Your task to perform on an android device: turn pop-ups on in chrome Image 0: 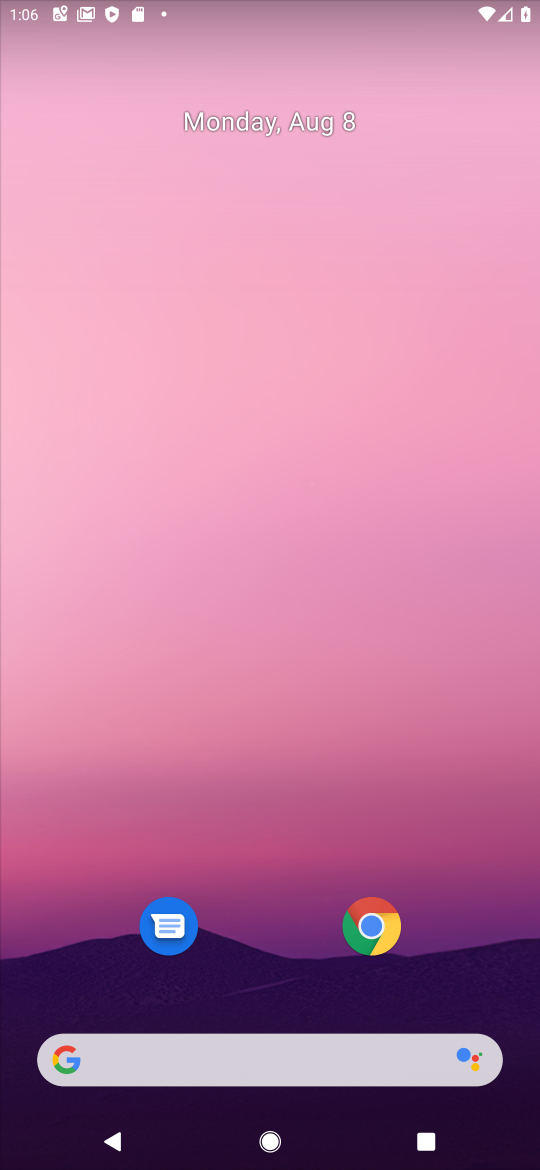
Step 0: drag from (342, 741) to (344, 647)
Your task to perform on an android device: turn pop-ups on in chrome Image 1: 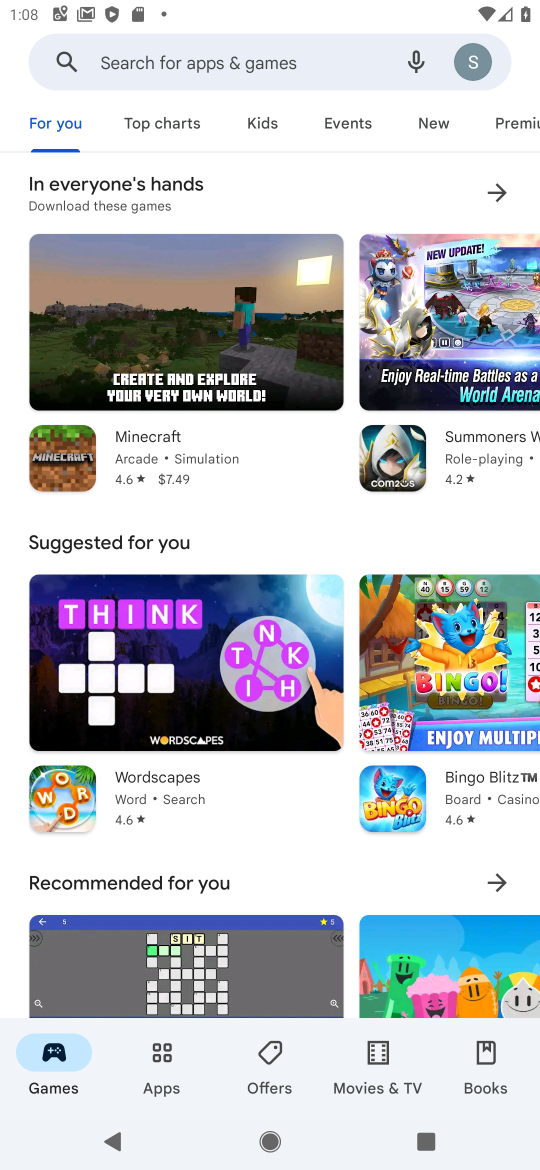
Step 1: press home button
Your task to perform on an android device: turn pop-ups on in chrome Image 2: 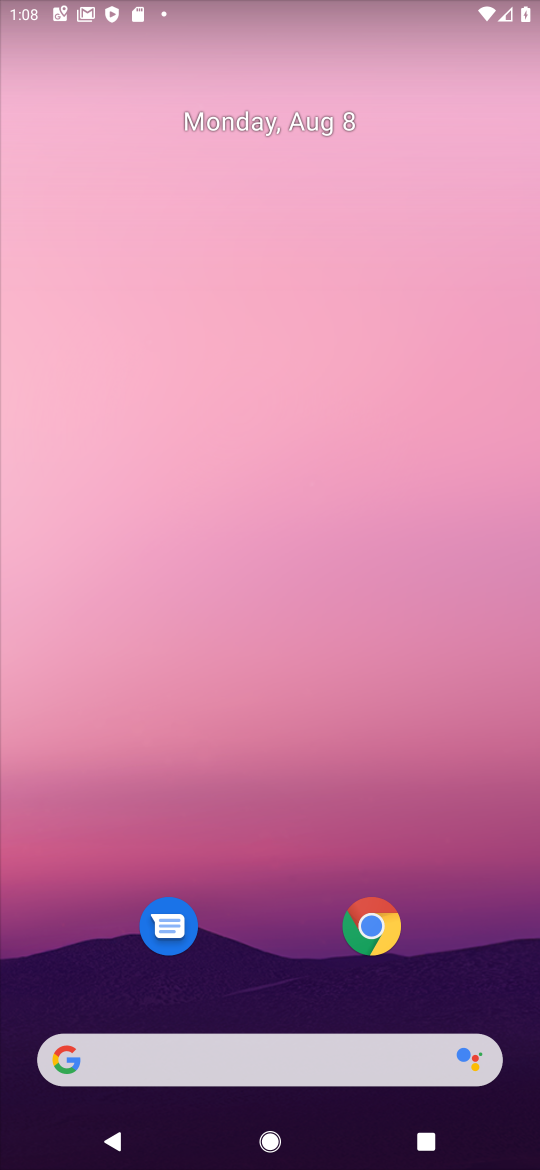
Step 2: drag from (300, 958) to (293, 110)
Your task to perform on an android device: turn pop-ups on in chrome Image 3: 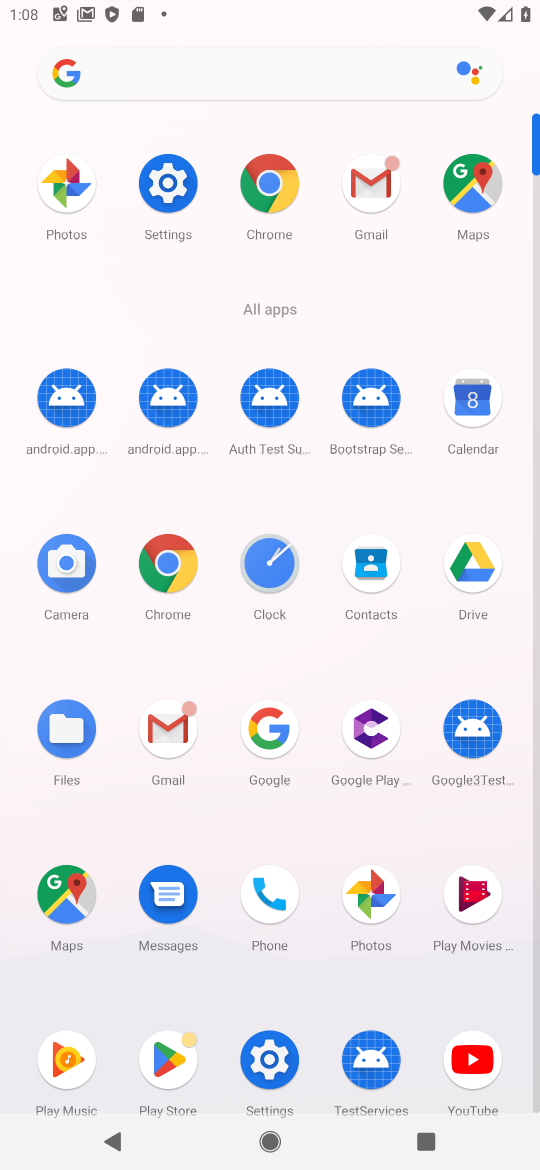
Step 3: click (293, 165)
Your task to perform on an android device: turn pop-ups on in chrome Image 4: 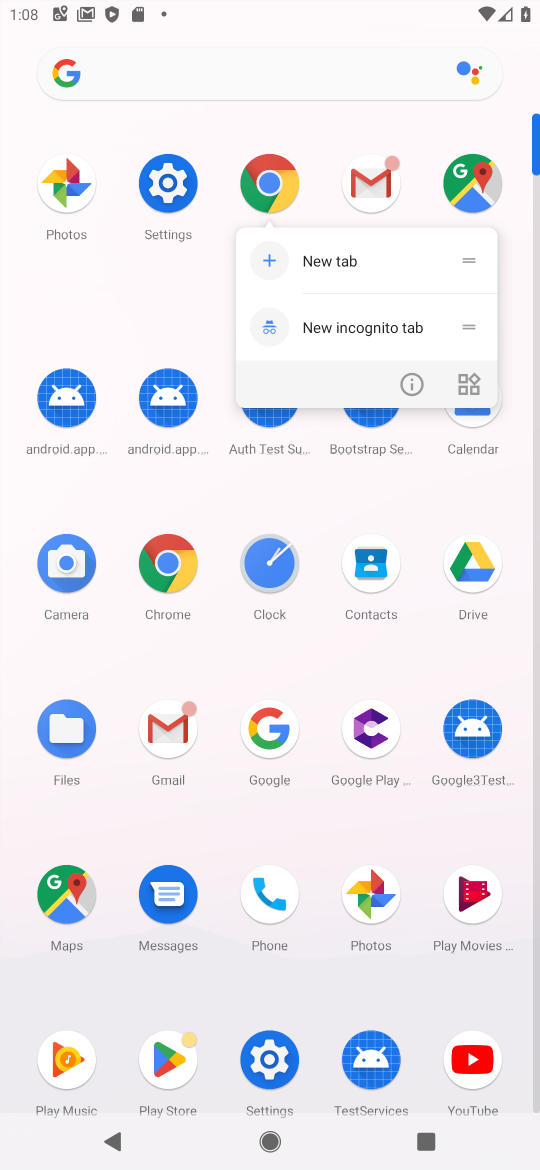
Step 4: click (273, 170)
Your task to perform on an android device: turn pop-ups on in chrome Image 5: 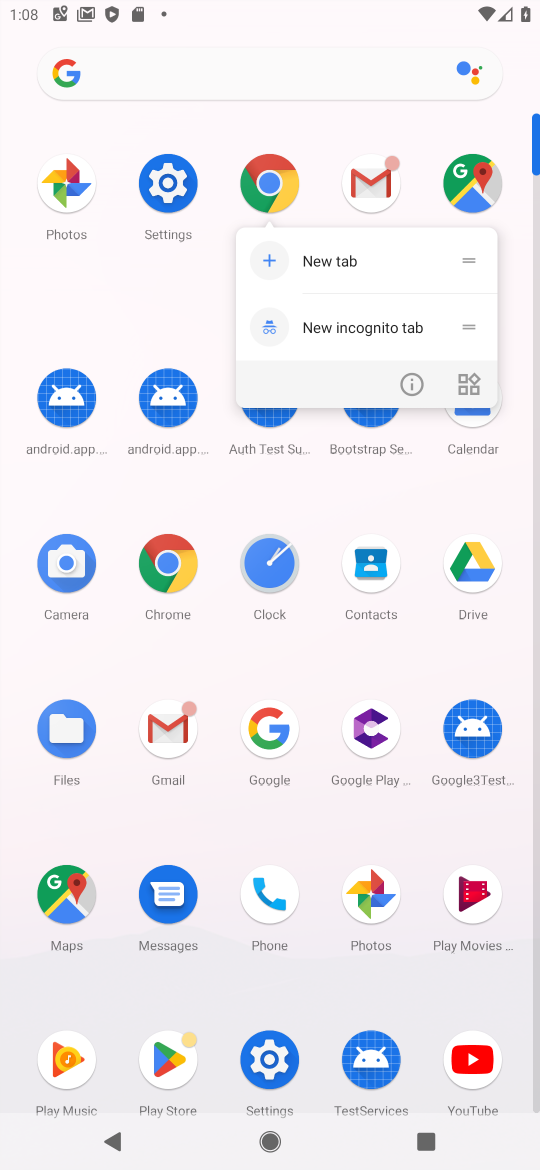
Step 5: click (273, 173)
Your task to perform on an android device: turn pop-ups on in chrome Image 6: 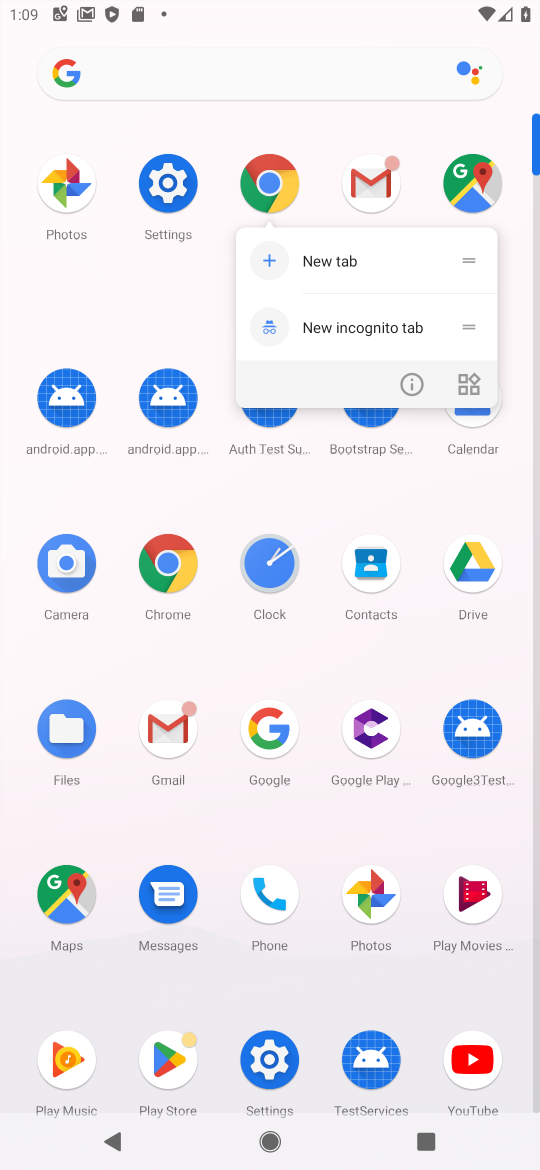
Step 6: click (251, 165)
Your task to perform on an android device: turn pop-ups on in chrome Image 7: 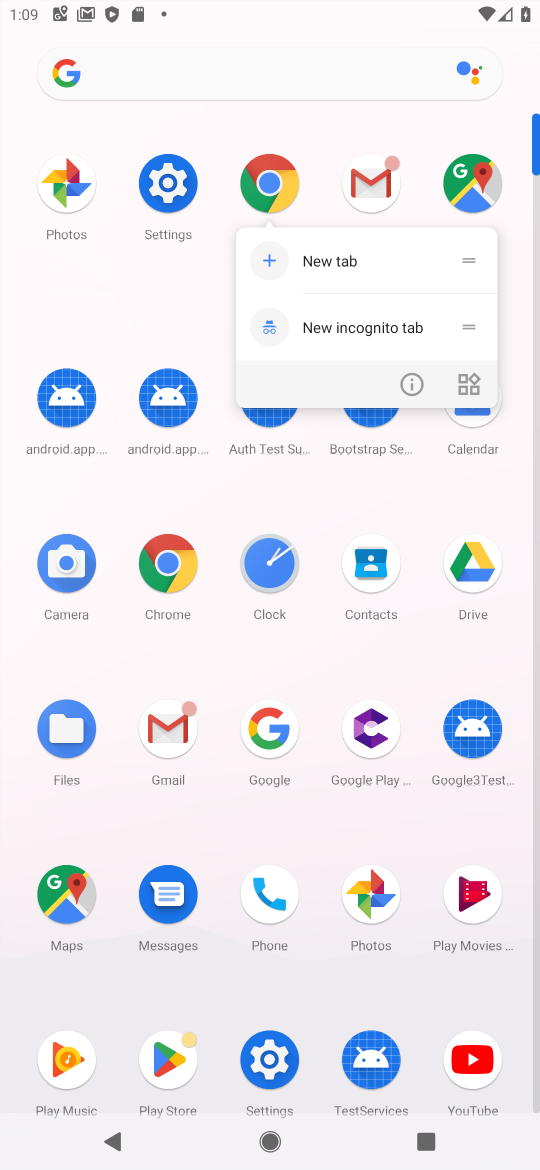
Step 7: click (289, 174)
Your task to perform on an android device: turn pop-ups on in chrome Image 8: 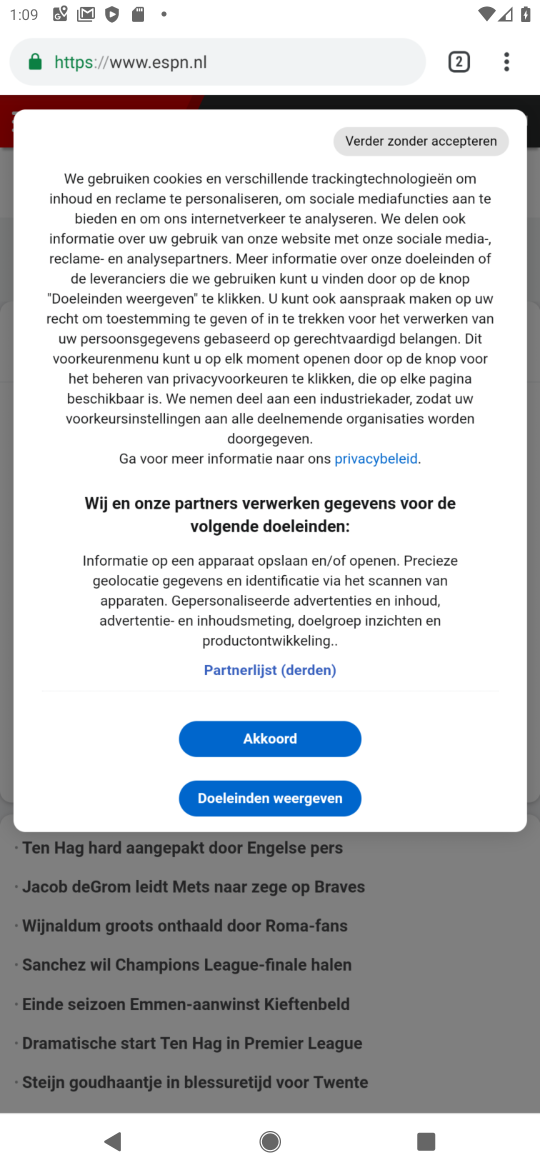
Step 8: click (512, 57)
Your task to perform on an android device: turn pop-ups on in chrome Image 9: 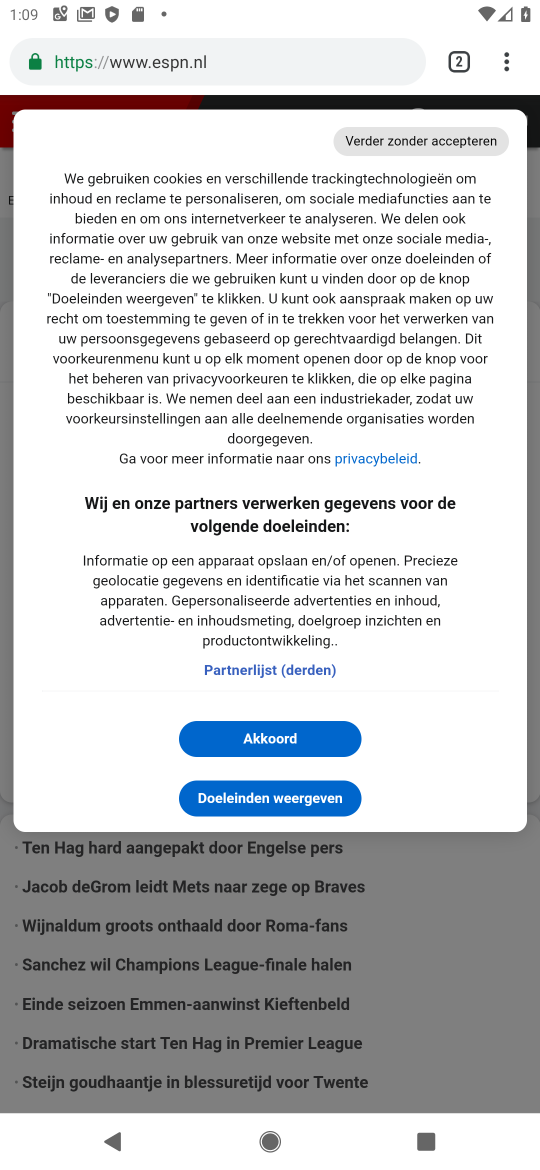
Step 9: click (512, 61)
Your task to perform on an android device: turn pop-ups on in chrome Image 10: 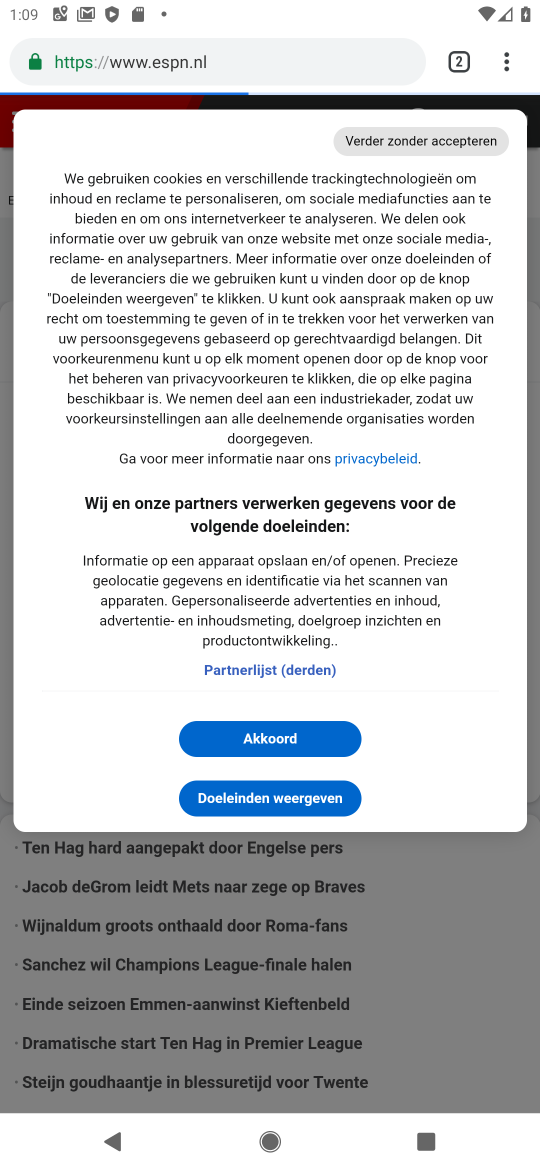
Step 10: click (498, 58)
Your task to perform on an android device: turn pop-ups on in chrome Image 11: 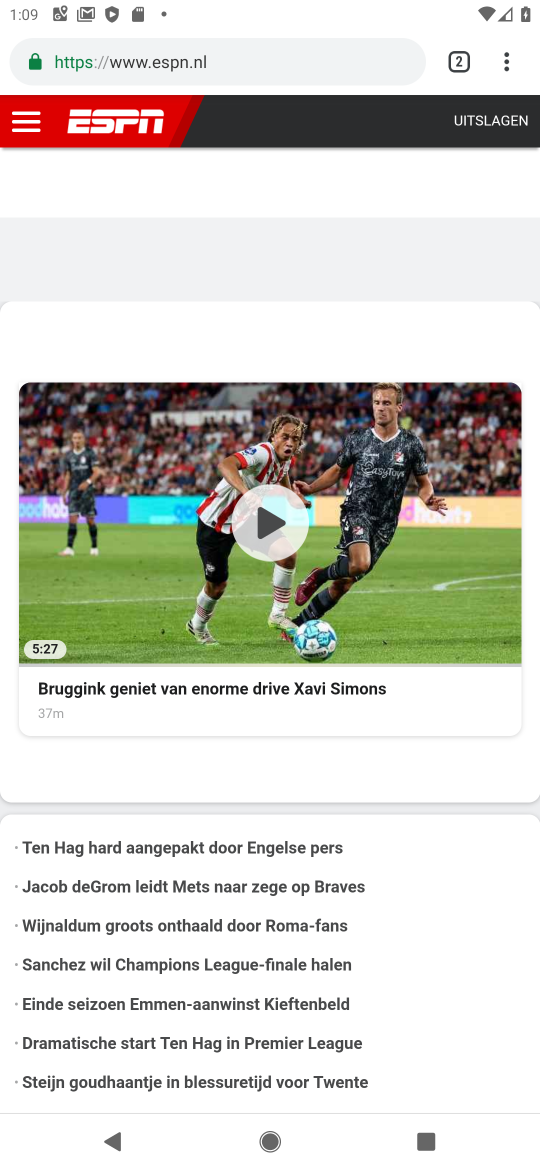
Step 11: click (513, 57)
Your task to perform on an android device: turn pop-ups on in chrome Image 12: 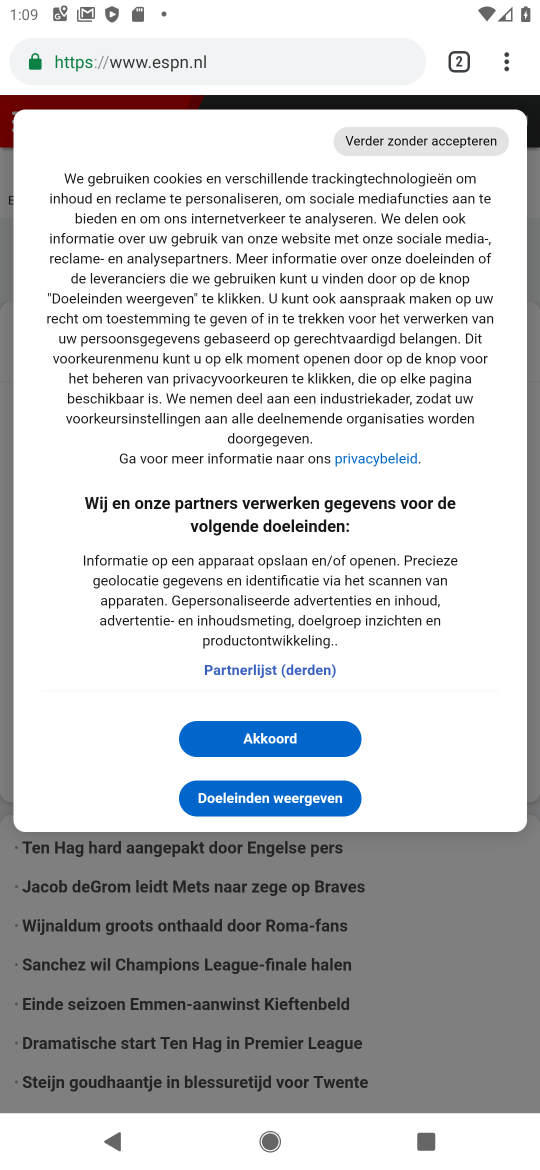
Step 12: click (513, 57)
Your task to perform on an android device: turn pop-ups on in chrome Image 13: 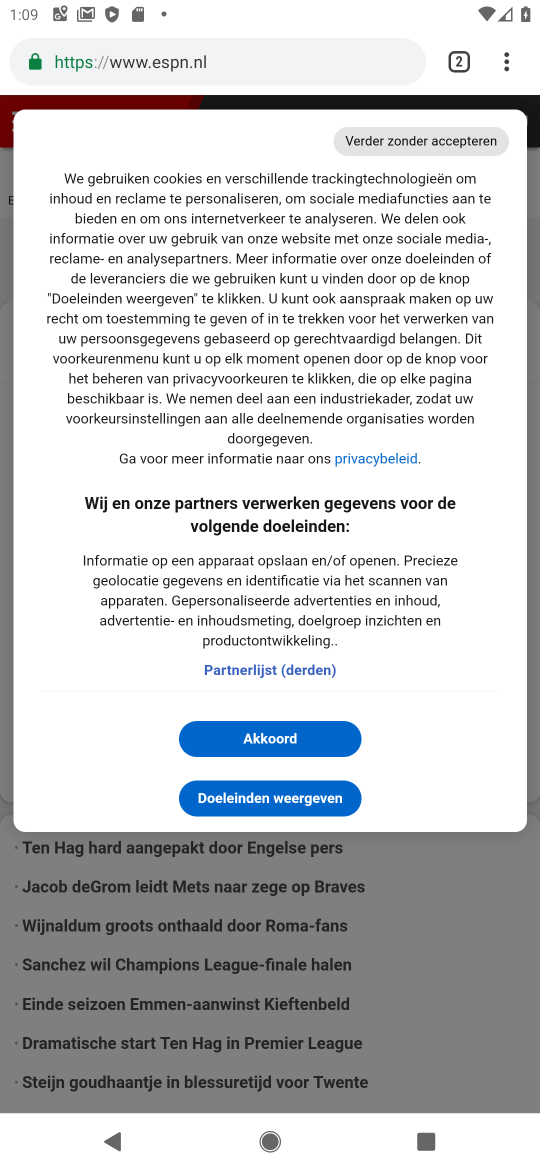
Step 13: click (497, 64)
Your task to perform on an android device: turn pop-ups on in chrome Image 14: 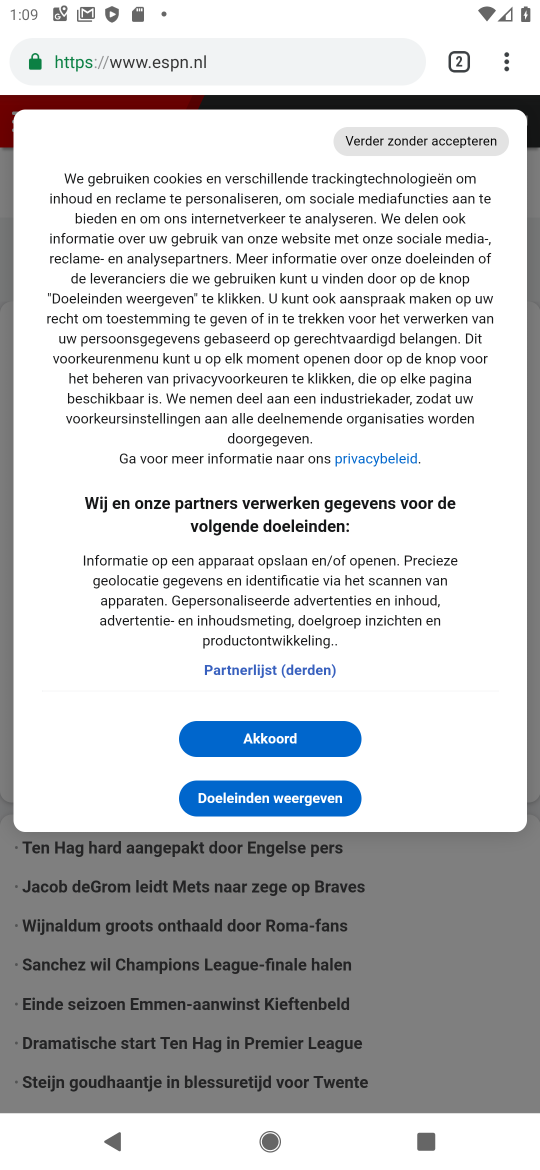
Step 14: click (497, 64)
Your task to perform on an android device: turn pop-ups on in chrome Image 15: 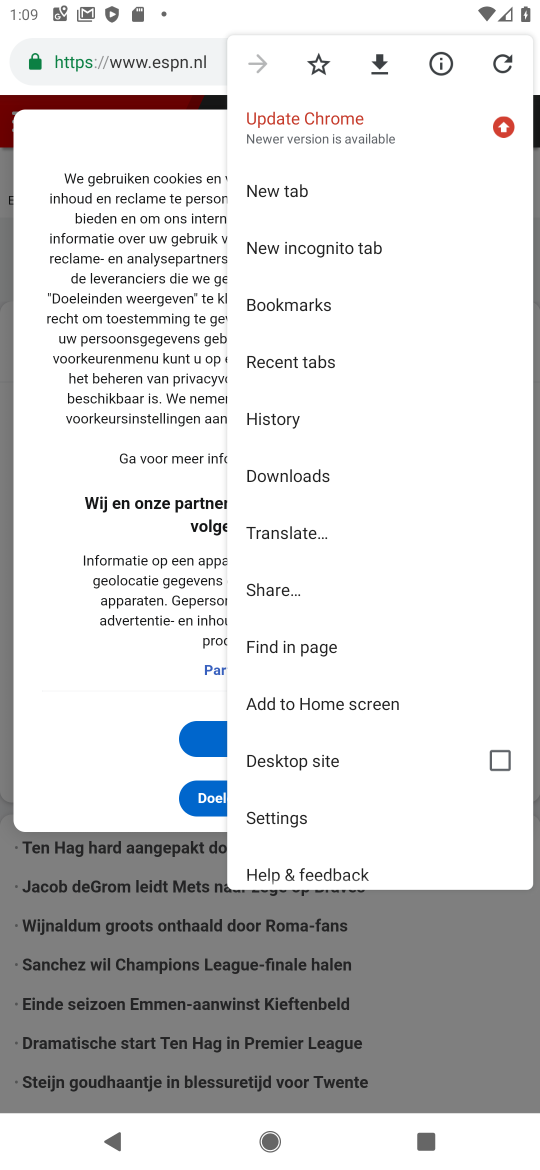
Step 15: click (279, 816)
Your task to perform on an android device: turn pop-ups on in chrome Image 16: 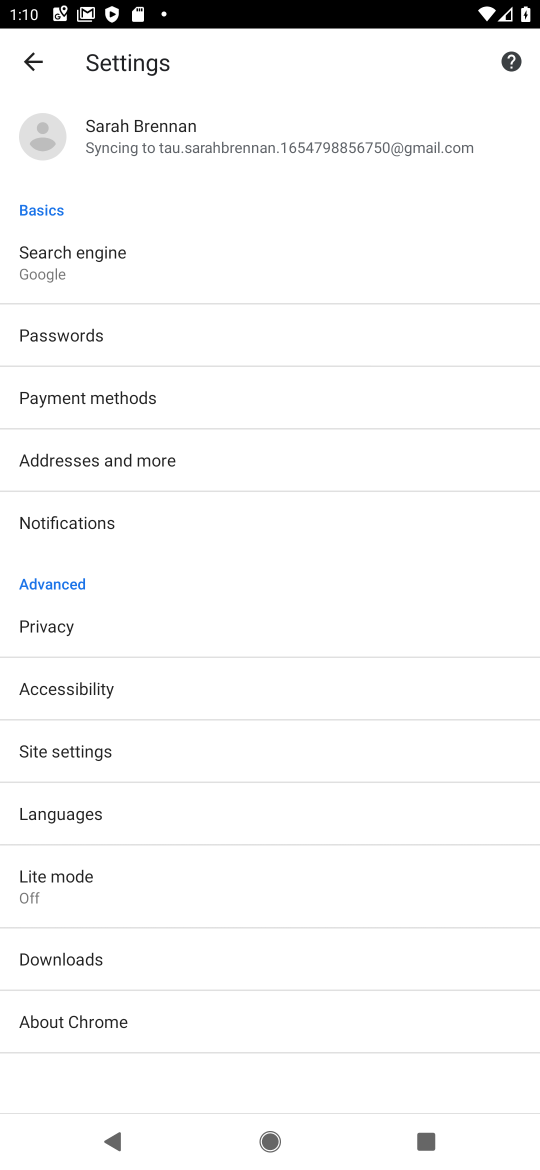
Step 16: click (85, 760)
Your task to perform on an android device: turn pop-ups on in chrome Image 17: 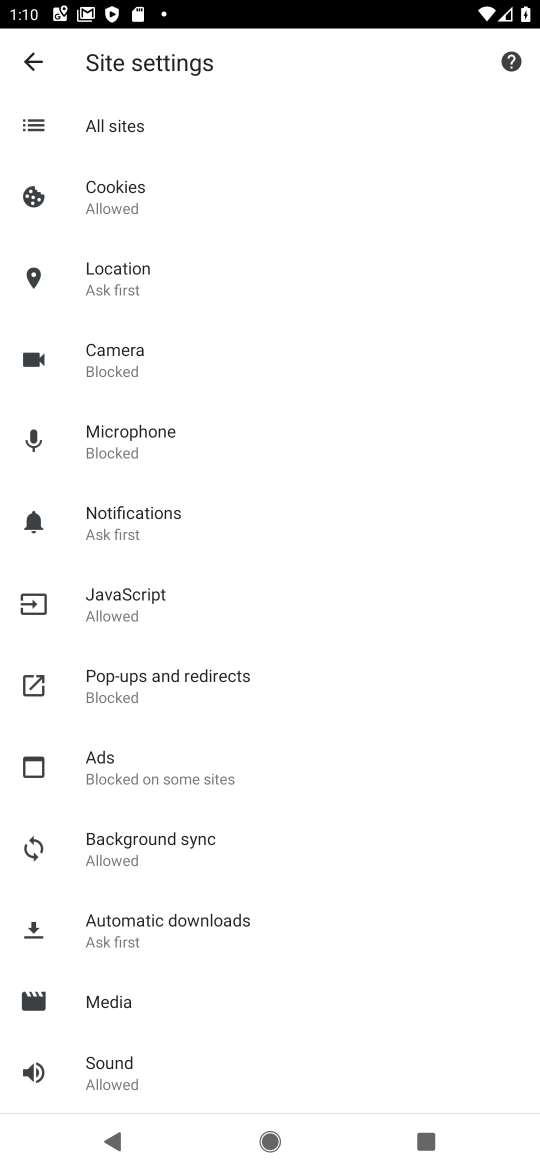
Step 17: click (194, 661)
Your task to perform on an android device: turn pop-ups on in chrome Image 18: 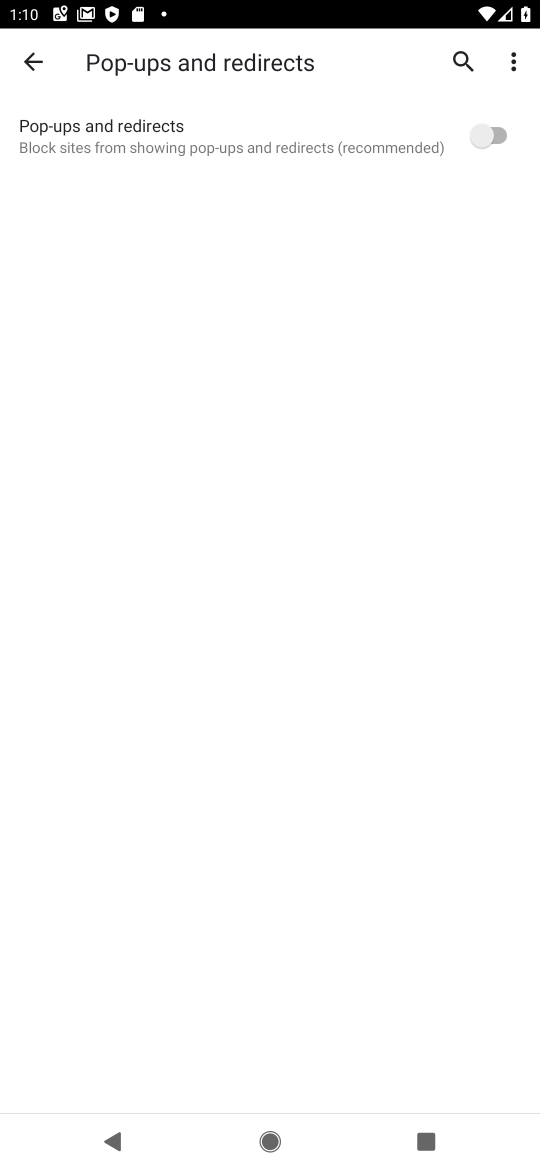
Step 18: click (482, 137)
Your task to perform on an android device: turn pop-ups on in chrome Image 19: 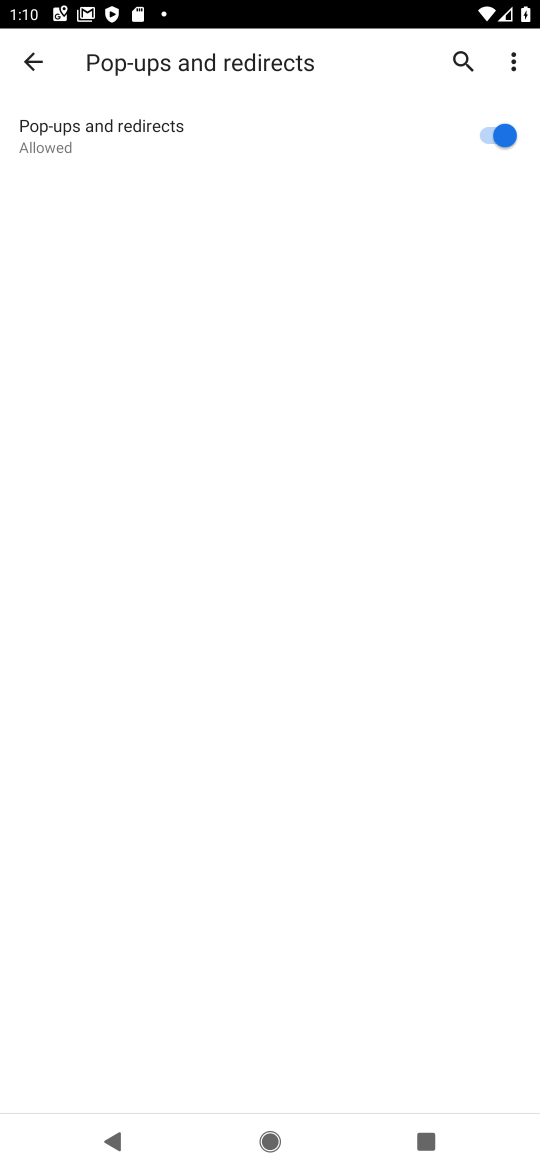
Step 19: task complete